Your task to perform on an android device: install app "Contacts" Image 0: 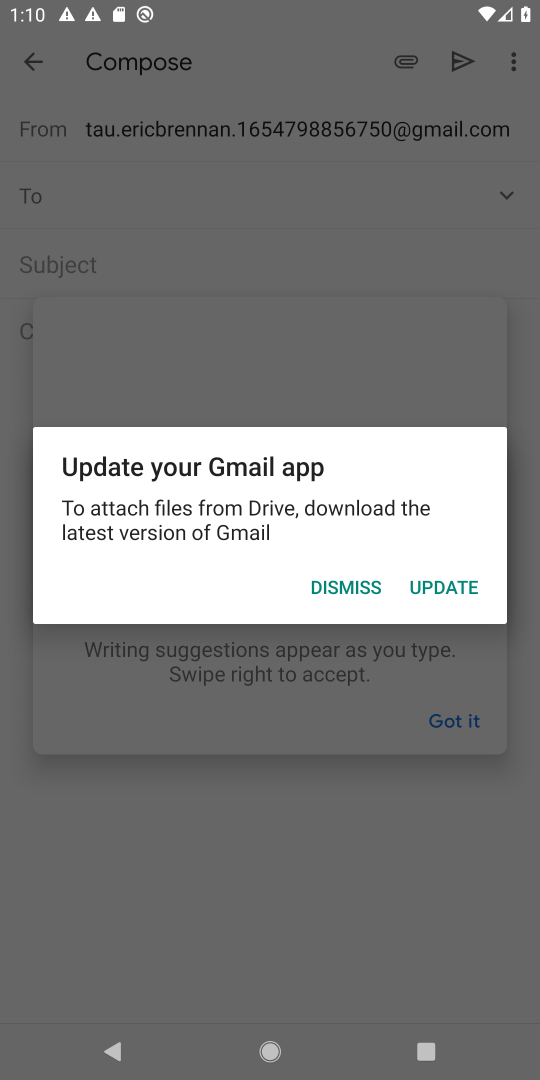
Step 0: press home button
Your task to perform on an android device: install app "Contacts" Image 1: 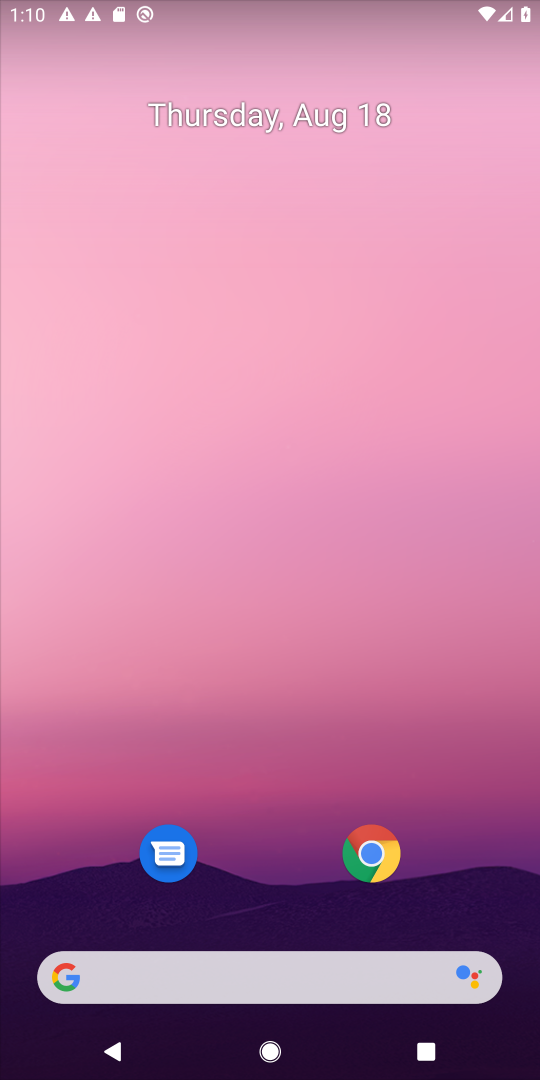
Step 1: drag from (342, 795) to (20, 704)
Your task to perform on an android device: install app "Contacts" Image 2: 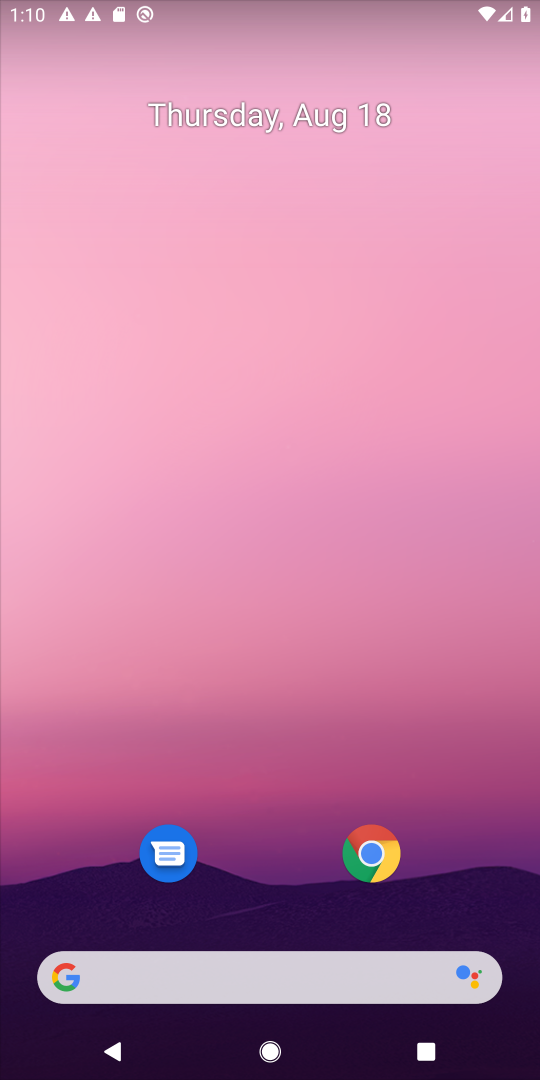
Step 2: drag from (348, 648) to (365, 369)
Your task to perform on an android device: install app "Contacts" Image 3: 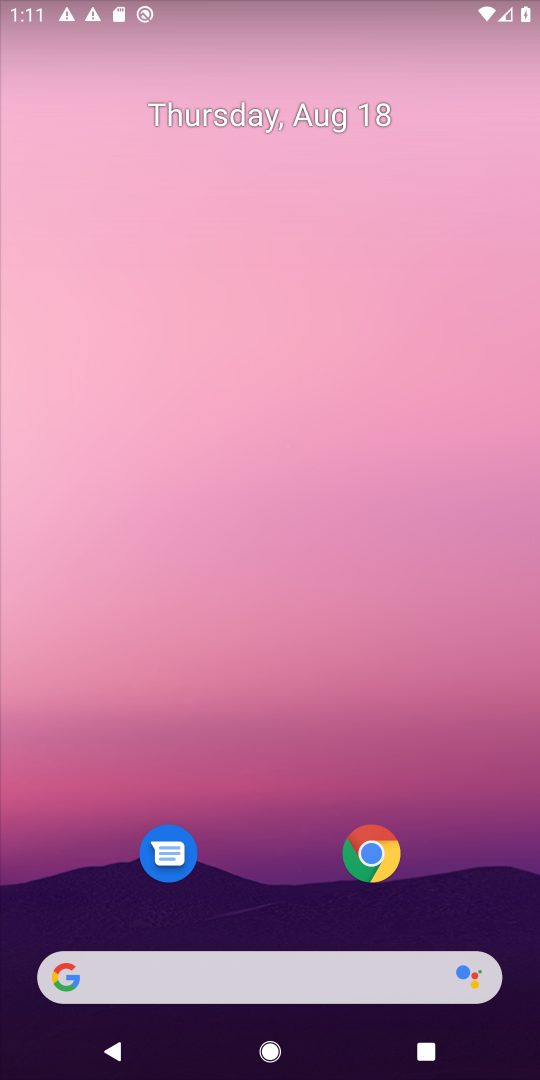
Step 3: drag from (410, 991) to (485, 277)
Your task to perform on an android device: install app "Contacts" Image 4: 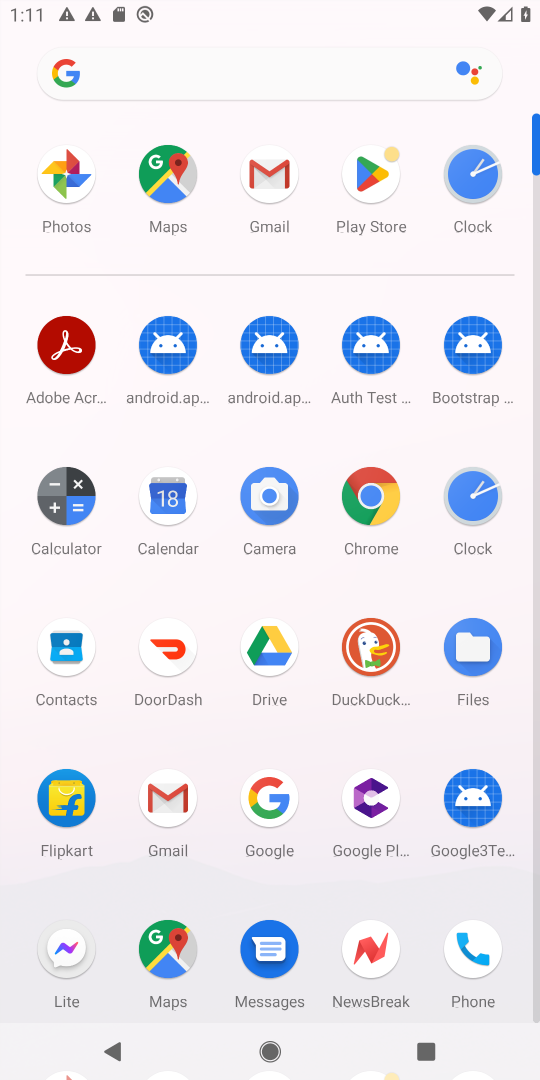
Step 4: click (66, 665)
Your task to perform on an android device: install app "Contacts" Image 5: 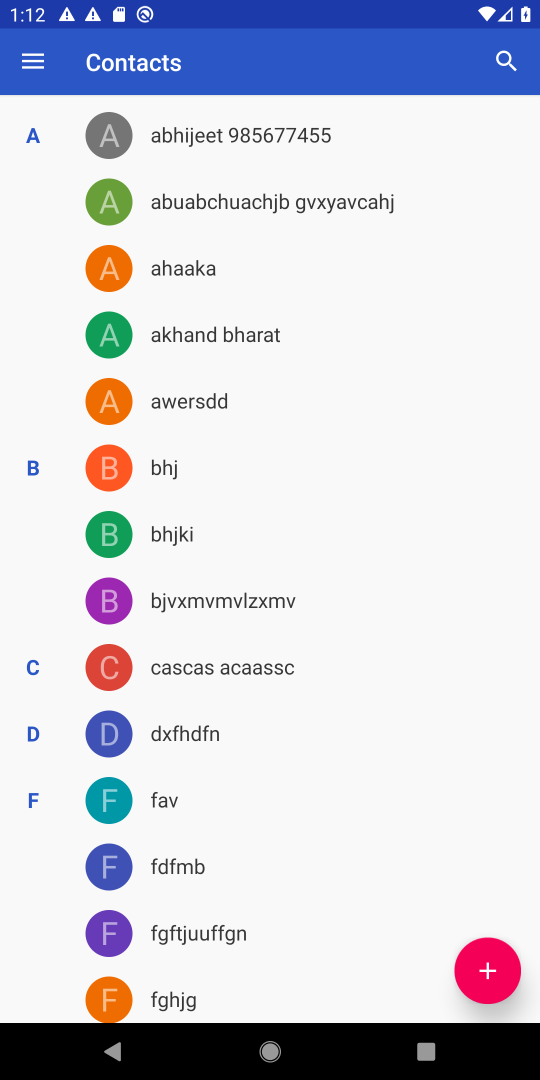
Step 5: task complete